Your task to perform on an android device: Show me popular videos on Youtube Image 0: 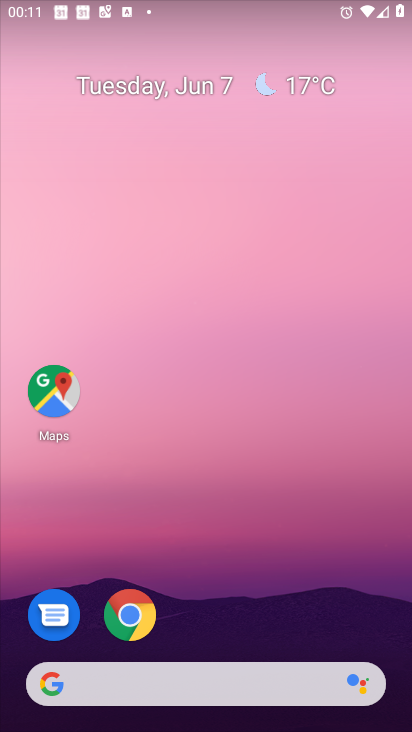
Step 0: drag from (390, 637) to (309, 63)
Your task to perform on an android device: Show me popular videos on Youtube Image 1: 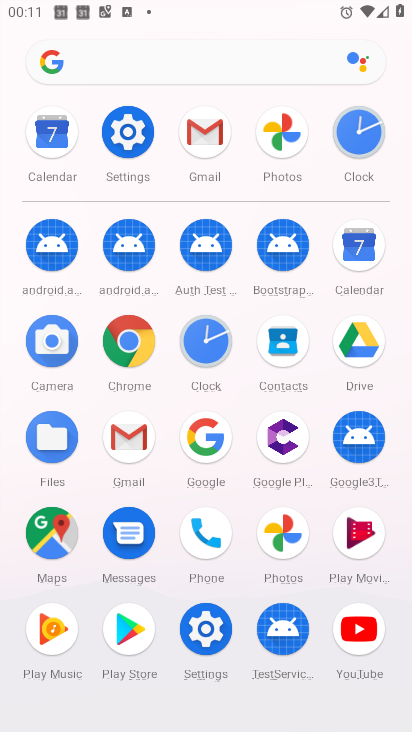
Step 1: click (368, 621)
Your task to perform on an android device: Show me popular videos on Youtube Image 2: 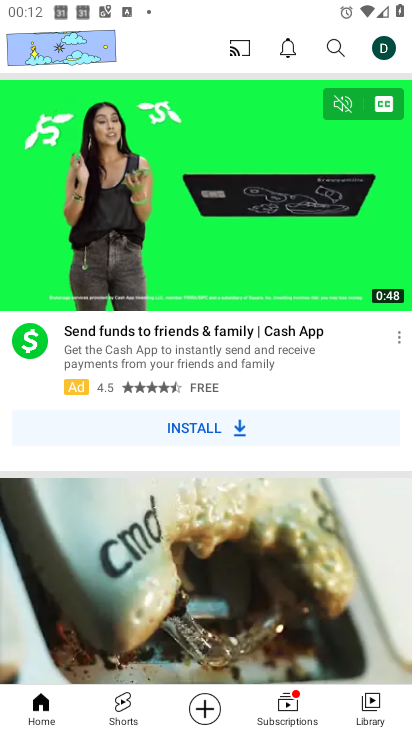
Step 2: click (325, 50)
Your task to perform on an android device: Show me popular videos on Youtube Image 3: 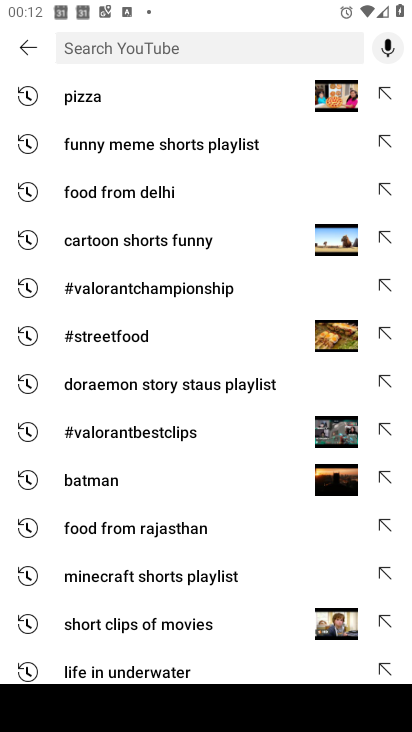
Step 3: type " popular videos"
Your task to perform on an android device: Show me popular videos on Youtube Image 4: 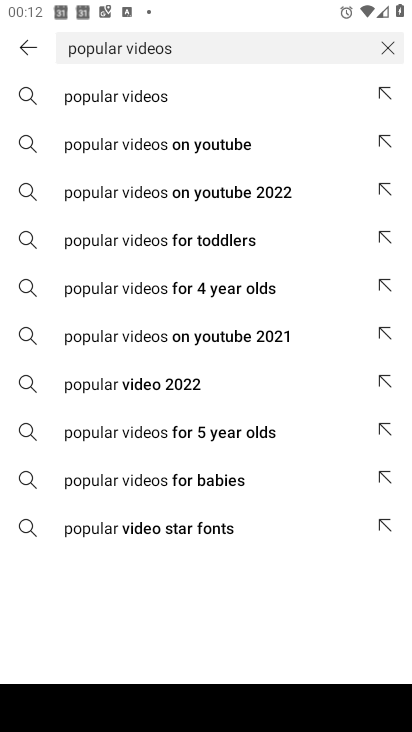
Step 4: click (125, 98)
Your task to perform on an android device: Show me popular videos on Youtube Image 5: 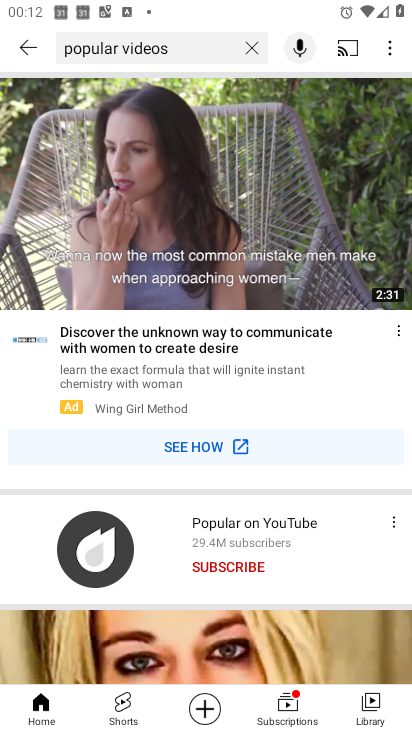
Step 5: task complete